Your task to perform on an android device: Search for sushi restaurants on Maps Image 0: 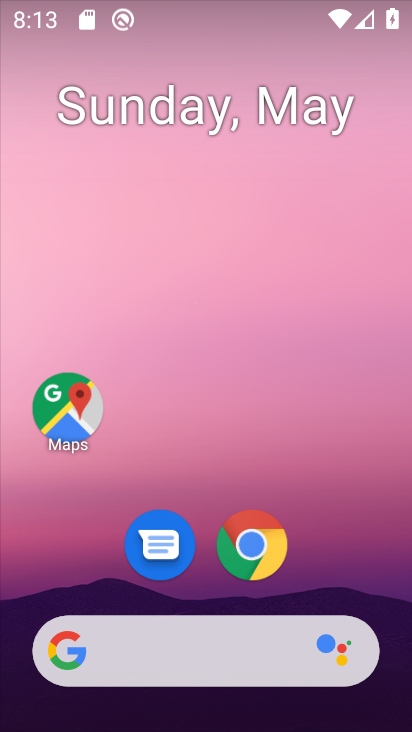
Step 0: click (80, 436)
Your task to perform on an android device: Search for sushi restaurants on Maps Image 1: 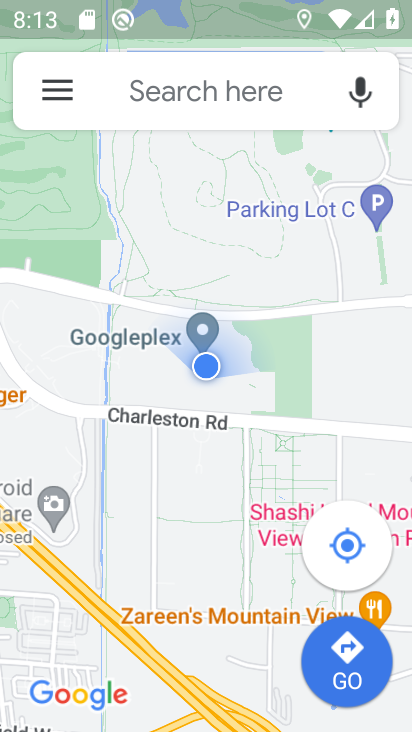
Step 1: click (193, 78)
Your task to perform on an android device: Search for sushi restaurants on Maps Image 2: 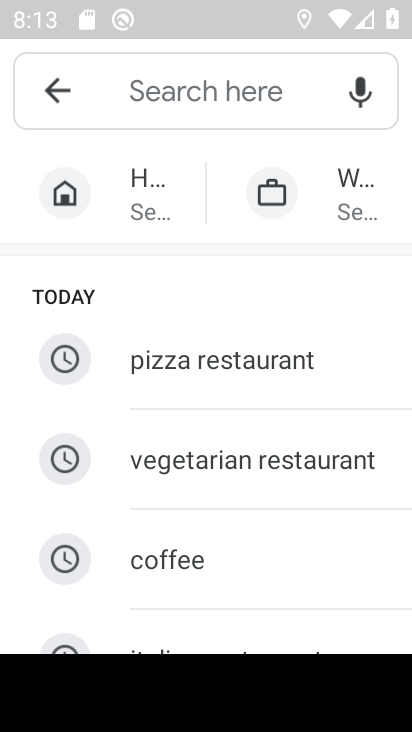
Step 2: type "sushi restaurants"
Your task to perform on an android device: Search for sushi restaurants on Maps Image 3: 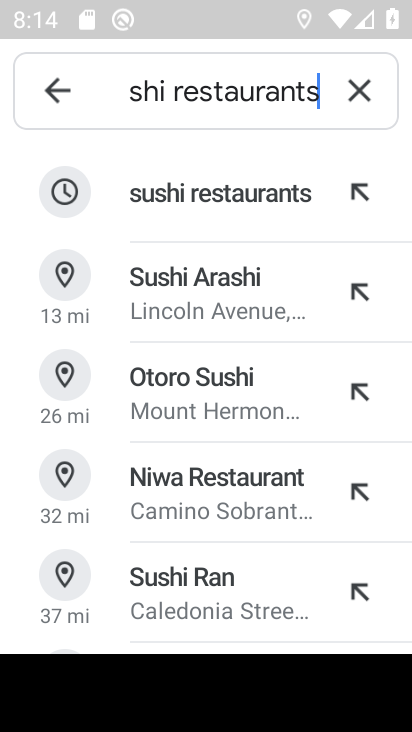
Step 3: click (152, 200)
Your task to perform on an android device: Search for sushi restaurants on Maps Image 4: 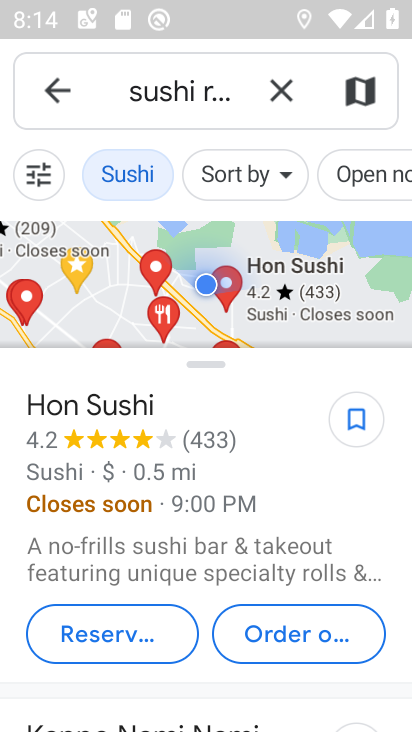
Step 4: task complete